Your task to perform on an android device: check google app version Image 0: 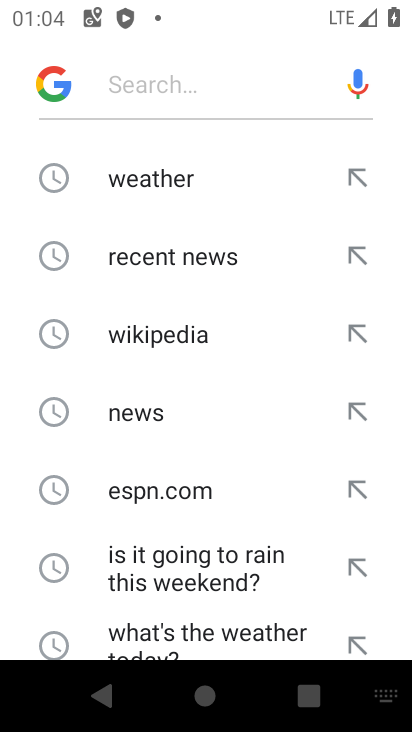
Step 0: press home button
Your task to perform on an android device: check google app version Image 1: 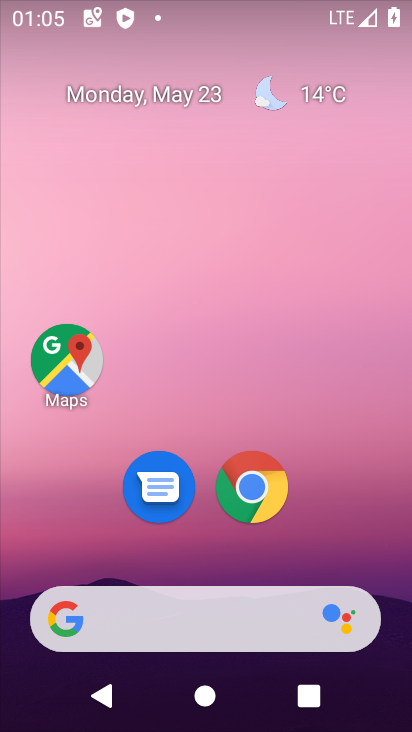
Step 1: click (251, 484)
Your task to perform on an android device: check google app version Image 2: 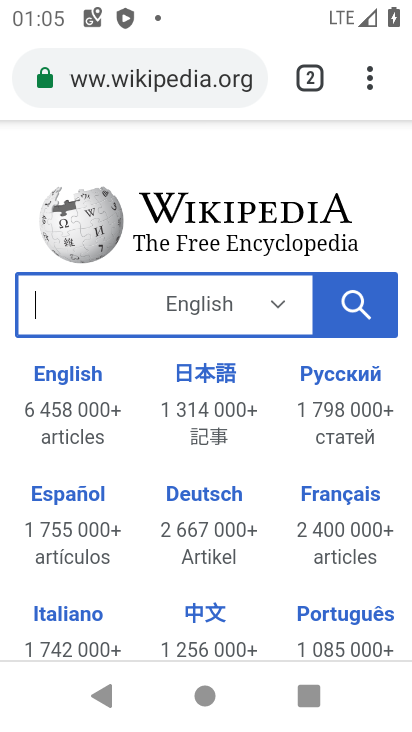
Step 2: click (369, 83)
Your task to perform on an android device: check google app version Image 3: 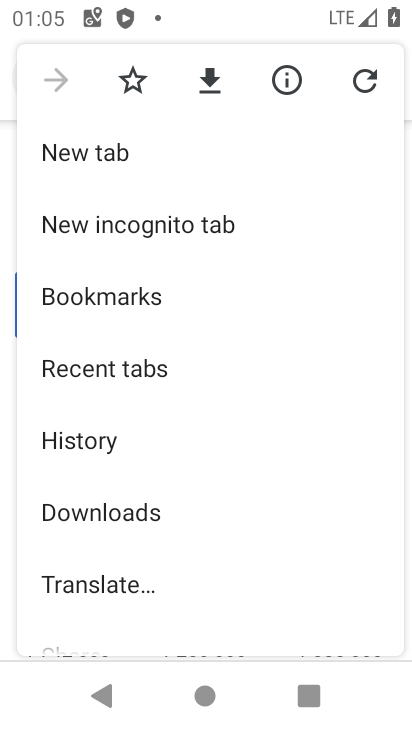
Step 3: drag from (222, 585) to (229, 146)
Your task to perform on an android device: check google app version Image 4: 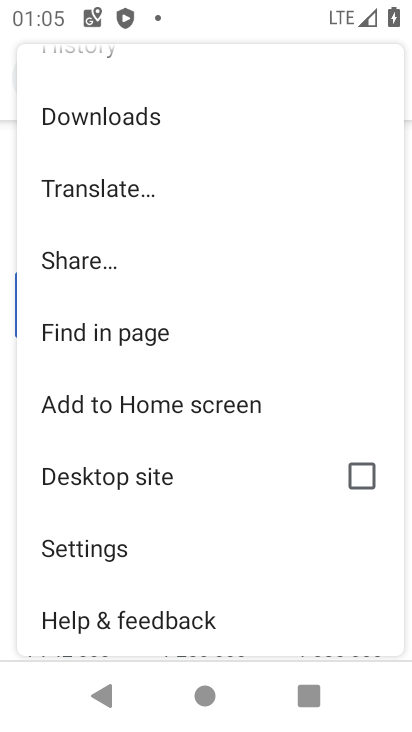
Step 4: click (78, 536)
Your task to perform on an android device: check google app version Image 5: 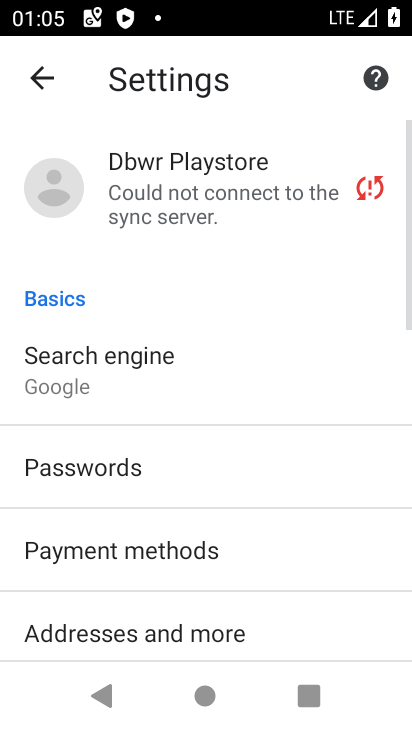
Step 5: drag from (264, 608) to (227, 163)
Your task to perform on an android device: check google app version Image 6: 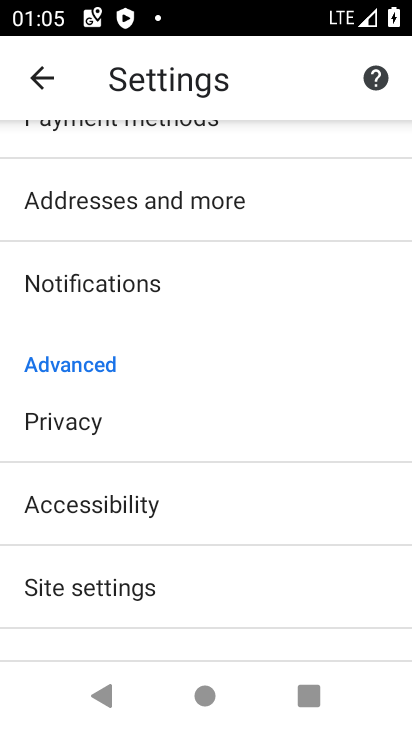
Step 6: drag from (214, 629) to (290, 174)
Your task to perform on an android device: check google app version Image 7: 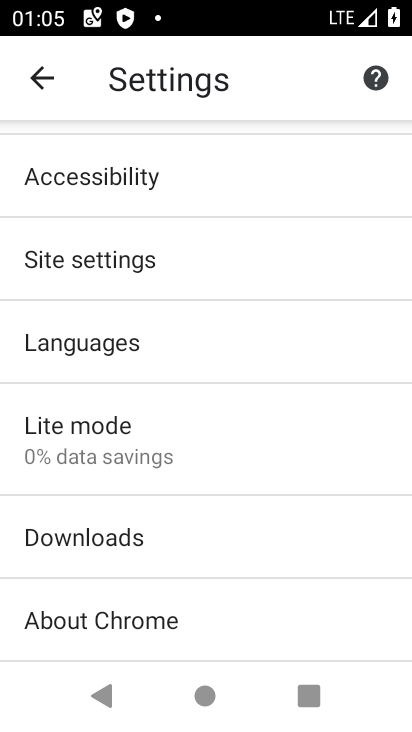
Step 7: click (71, 621)
Your task to perform on an android device: check google app version Image 8: 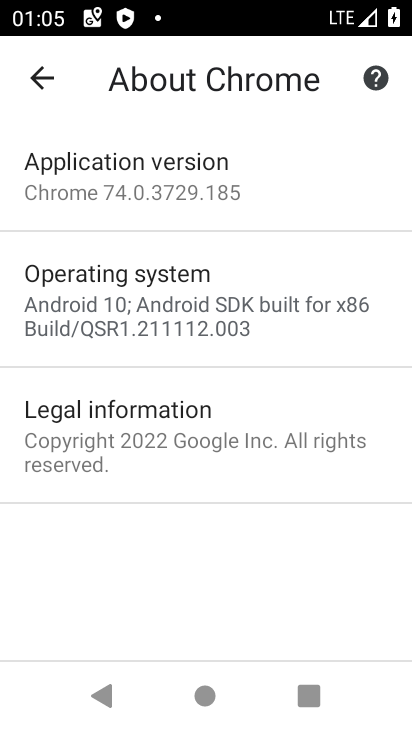
Step 8: click (119, 166)
Your task to perform on an android device: check google app version Image 9: 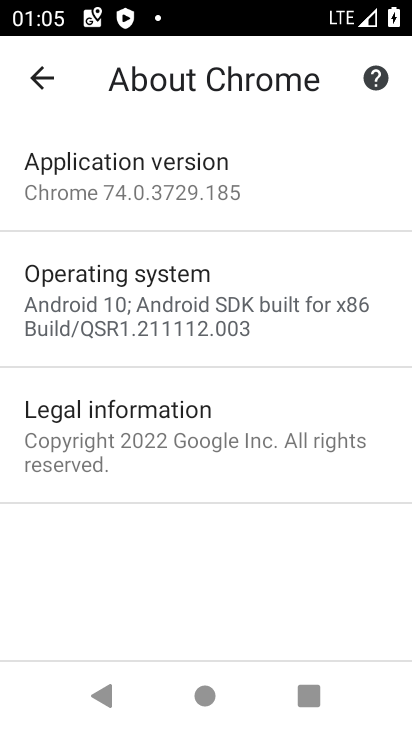
Step 9: task complete